Your task to perform on an android device: turn on airplane mode Image 0: 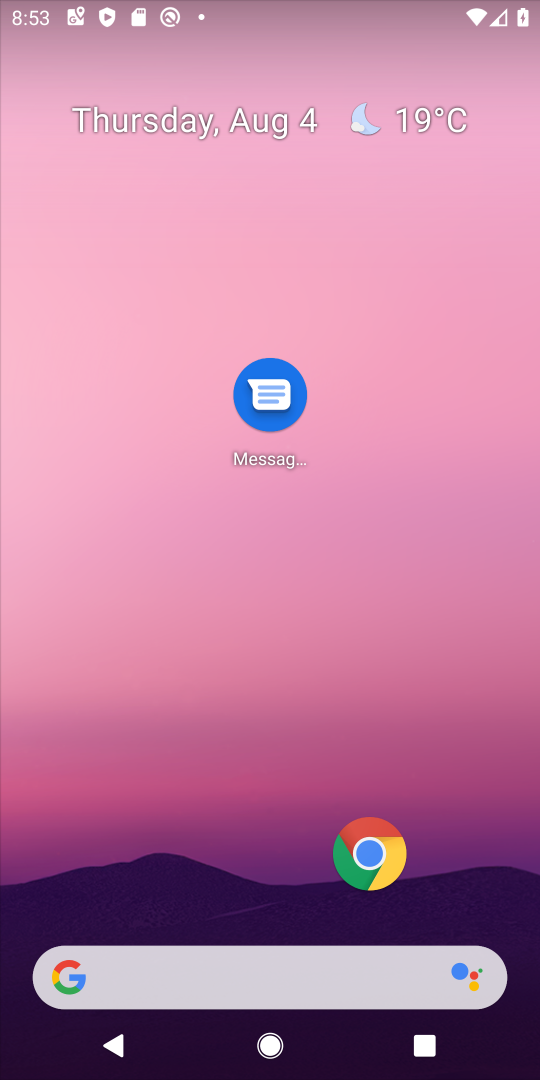
Step 0: drag from (227, 895) to (305, 280)
Your task to perform on an android device: turn on airplane mode Image 1: 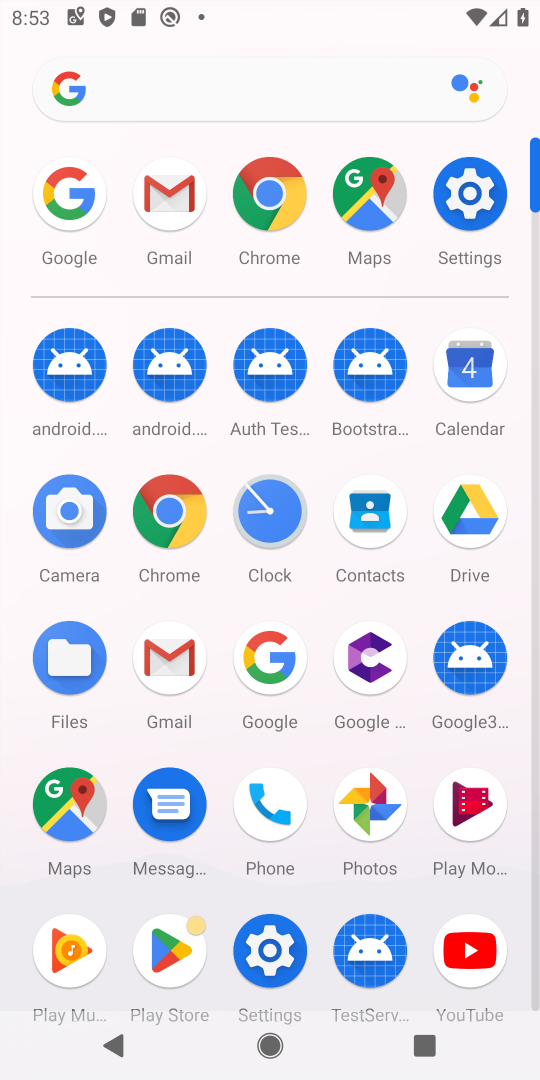
Step 1: click (475, 194)
Your task to perform on an android device: turn on airplane mode Image 2: 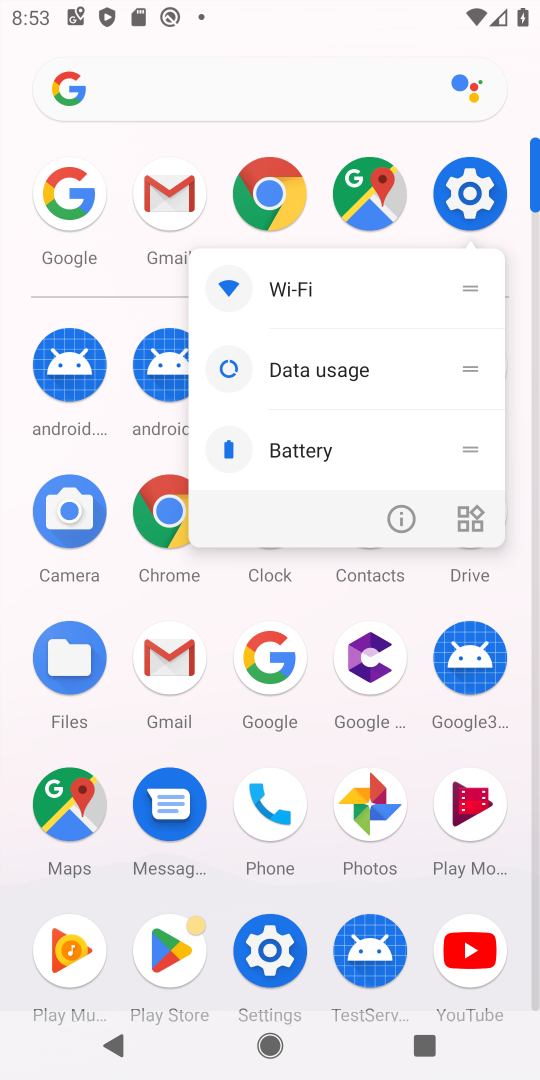
Step 2: click (479, 212)
Your task to perform on an android device: turn on airplane mode Image 3: 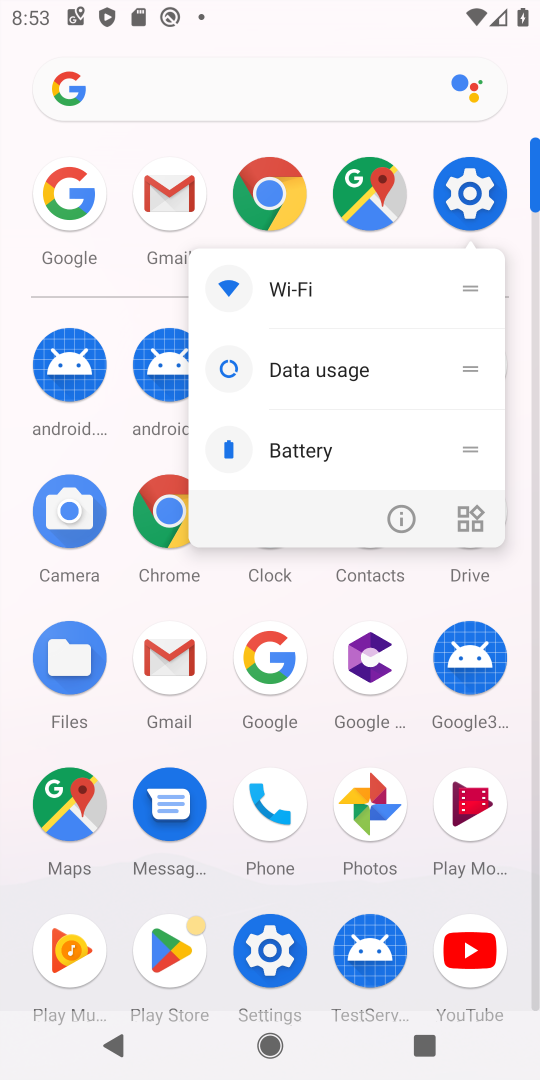
Step 3: click (464, 194)
Your task to perform on an android device: turn on airplane mode Image 4: 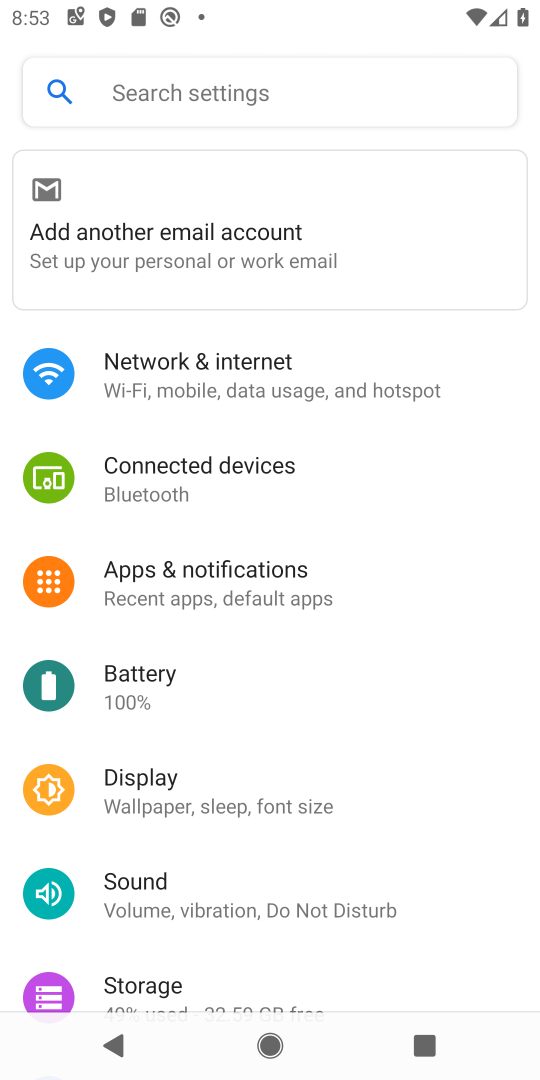
Step 4: click (282, 361)
Your task to perform on an android device: turn on airplane mode Image 5: 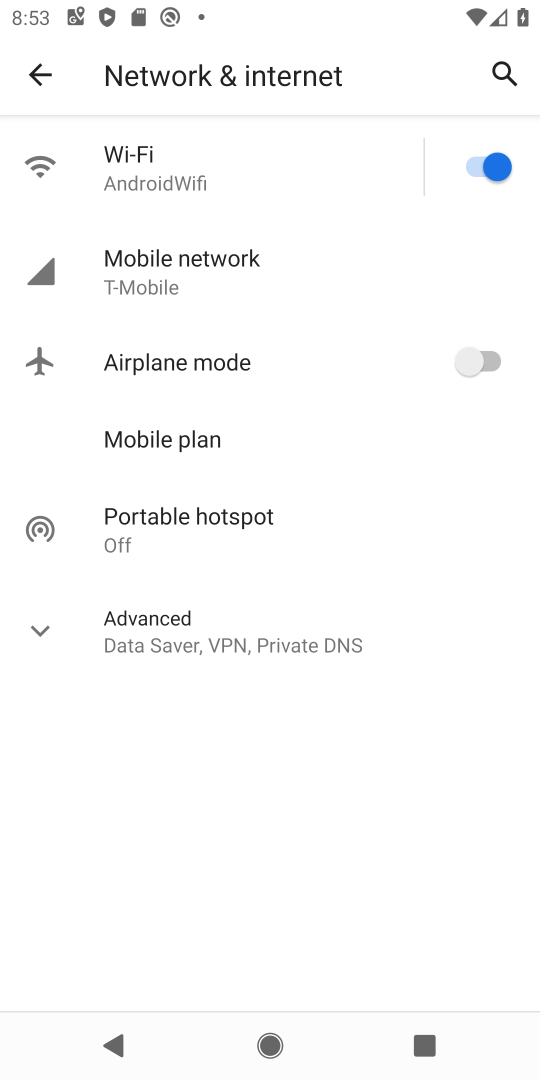
Step 5: click (493, 356)
Your task to perform on an android device: turn on airplane mode Image 6: 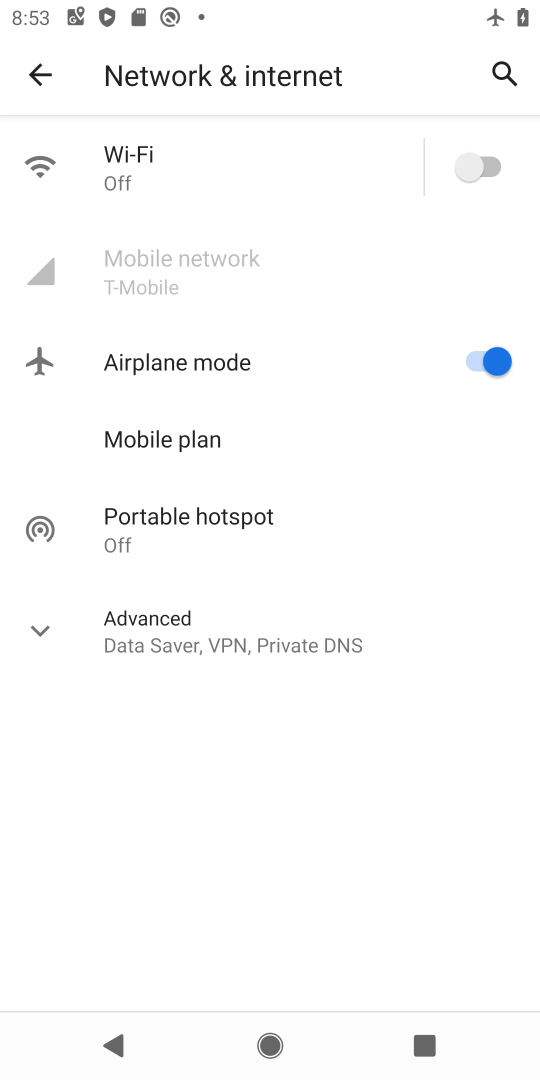
Step 6: task complete